Your task to perform on an android device: Go to network settings Image 0: 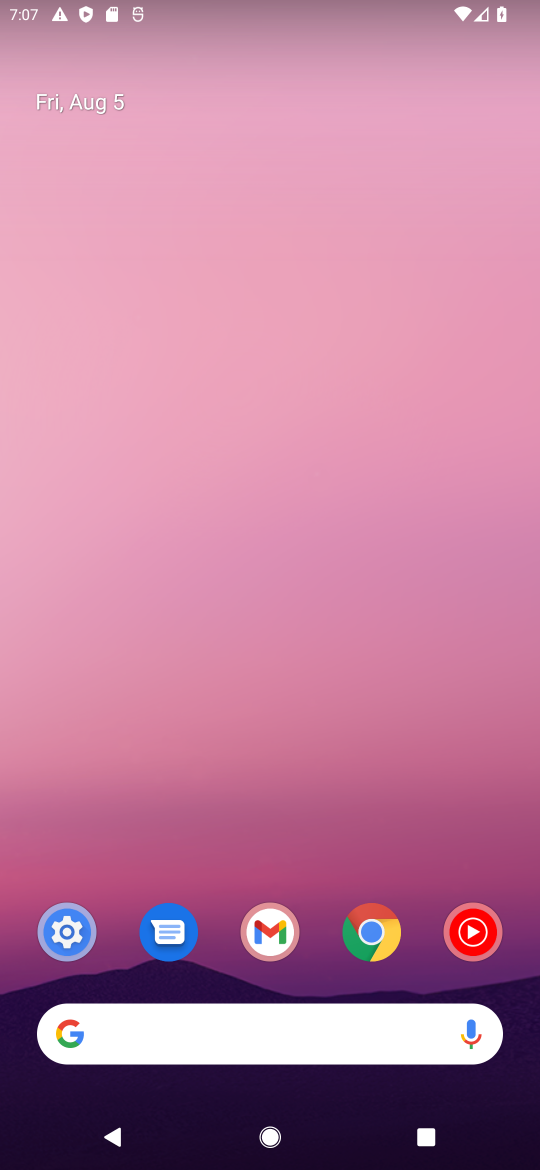
Step 0: drag from (264, 1047) to (267, 157)
Your task to perform on an android device: Go to network settings Image 1: 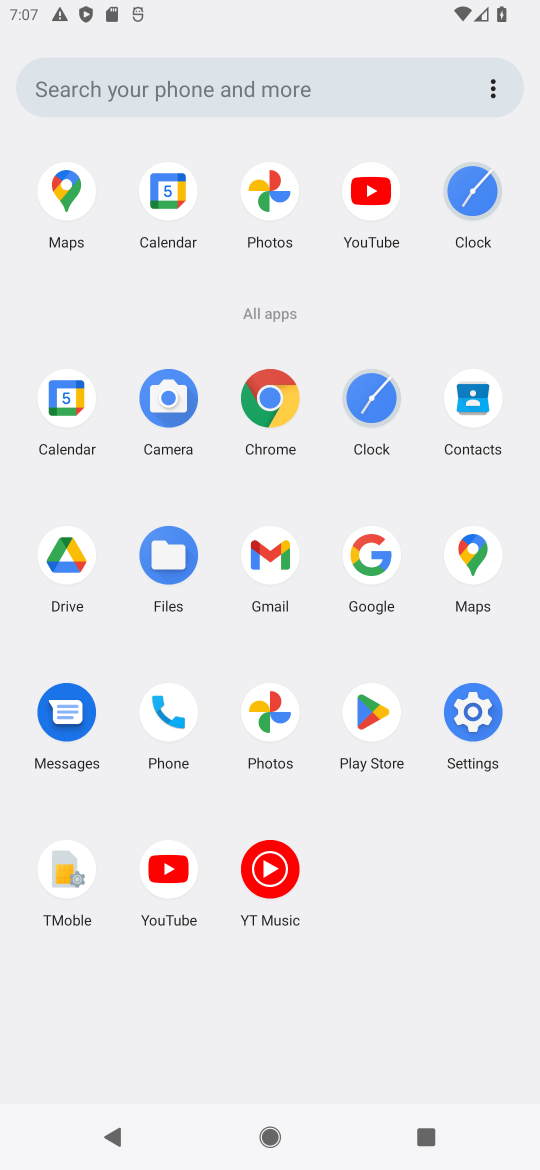
Step 1: click (473, 714)
Your task to perform on an android device: Go to network settings Image 2: 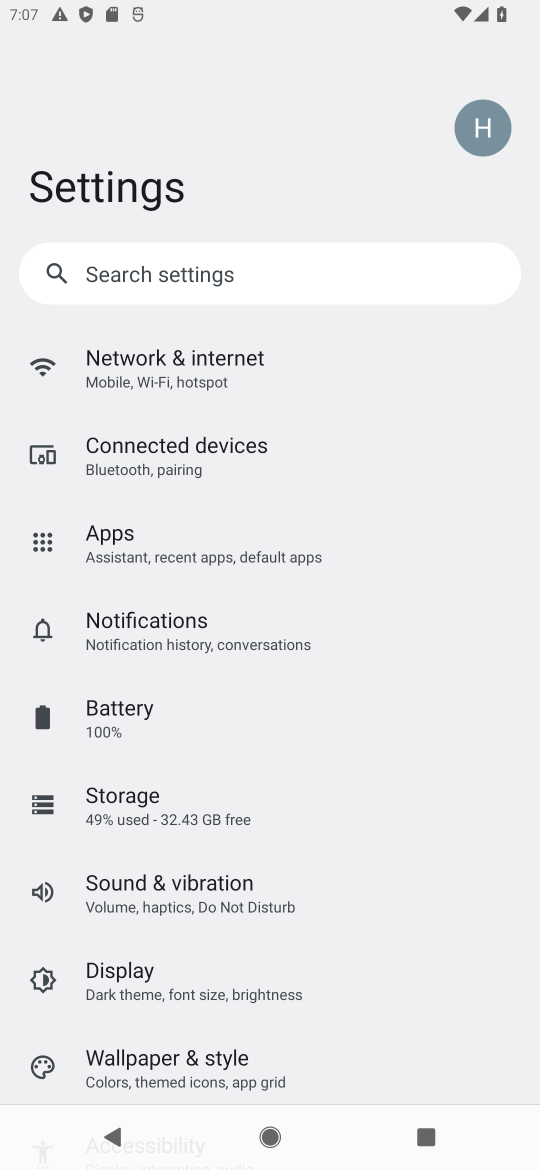
Step 2: click (202, 376)
Your task to perform on an android device: Go to network settings Image 3: 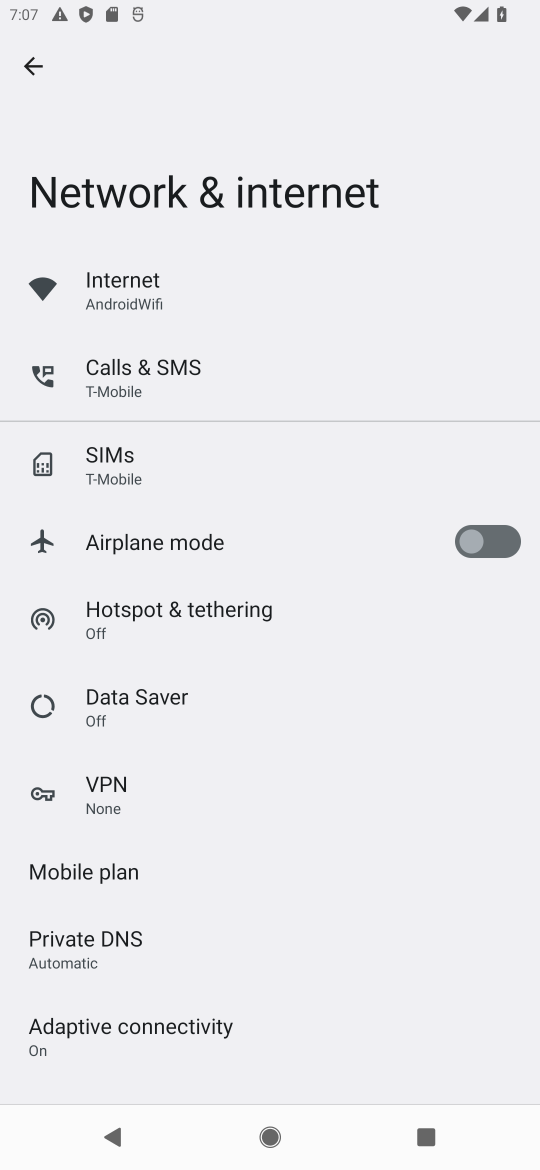
Step 3: click (114, 295)
Your task to perform on an android device: Go to network settings Image 4: 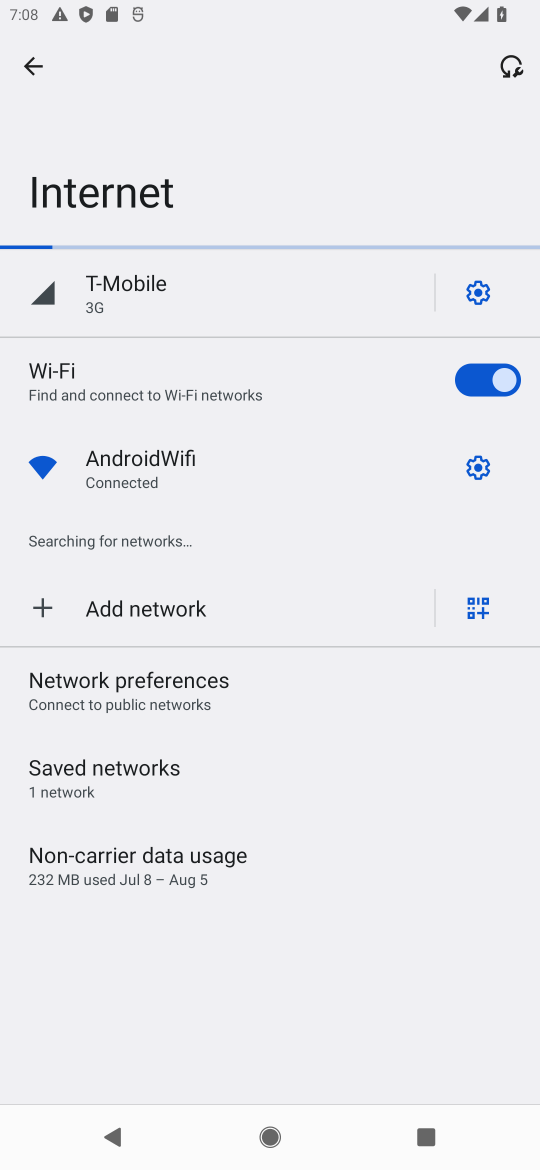
Step 4: task complete